Your task to perform on an android device: Open wifi settings Image 0: 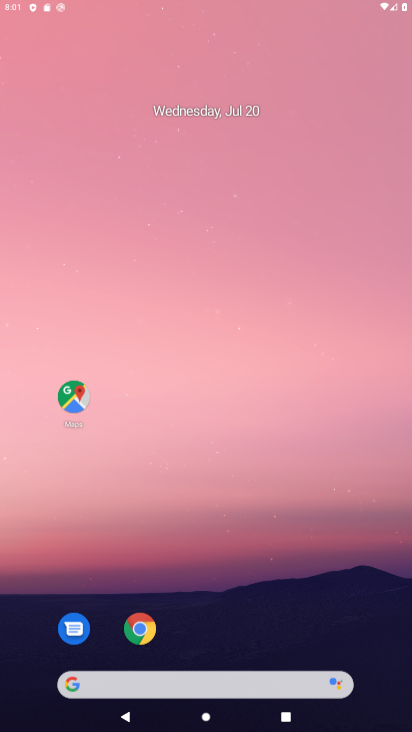
Step 0: drag from (264, 617) to (193, 149)
Your task to perform on an android device: Open wifi settings Image 1: 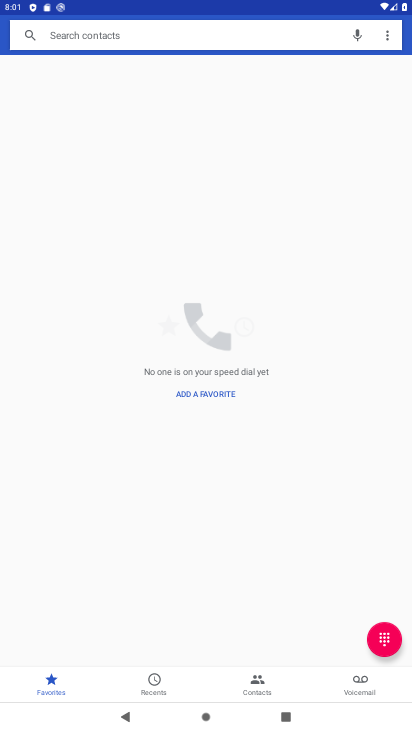
Step 1: press home button
Your task to perform on an android device: Open wifi settings Image 2: 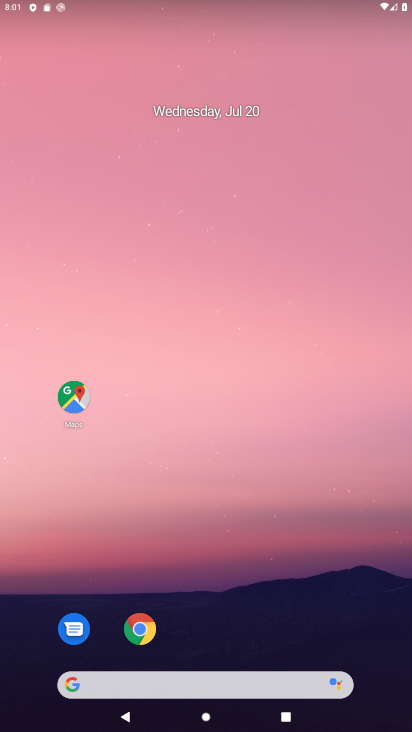
Step 2: drag from (311, 553) to (290, 151)
Your task to perform on an android device: Open wifi settings Image 3: 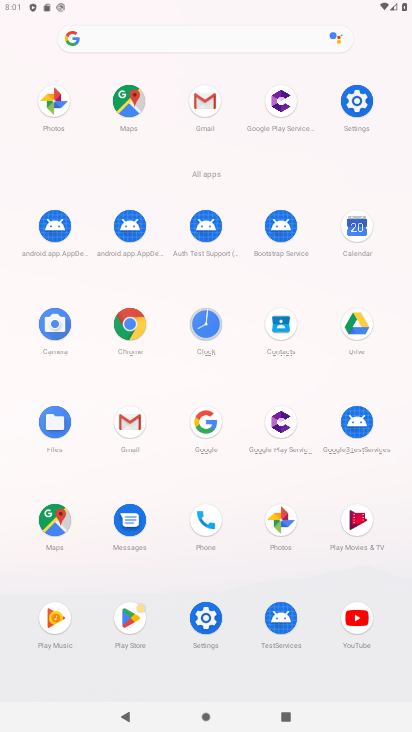
Step 3: click (354, 96)
Your task to perform on an android device: Open wifi settings Image 4: 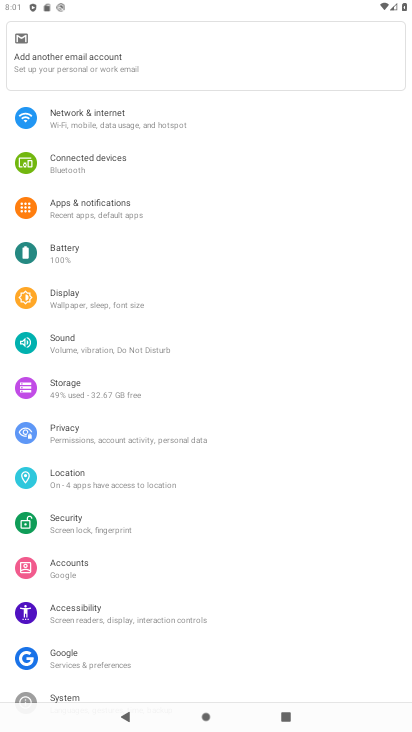
Step 4: click (284, 111)
Your task to perform on an android device: Open wifi settings Image 5: 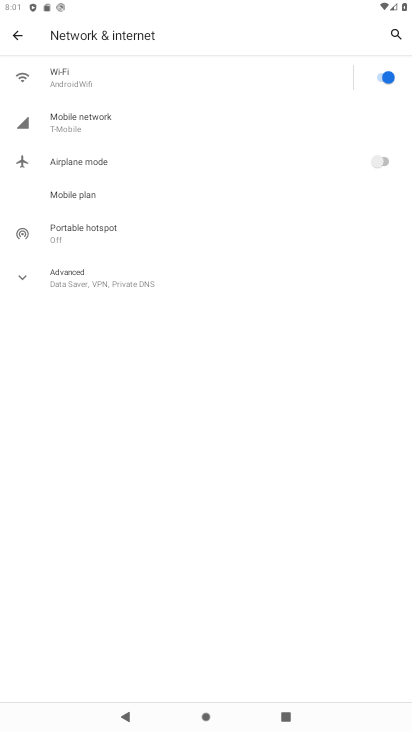
Step 5: click (170, 81)
Your task to perform on an android device: Open wifi settings Image 6: 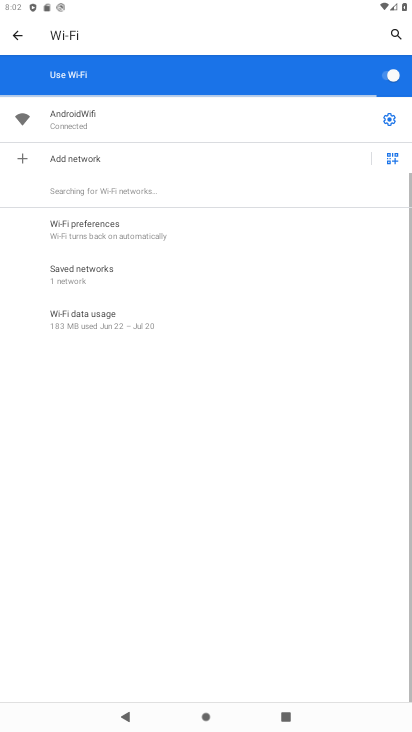
Step 6: task complete